Your task to perform on an android device: allow cookies in the chrome app Image 0: 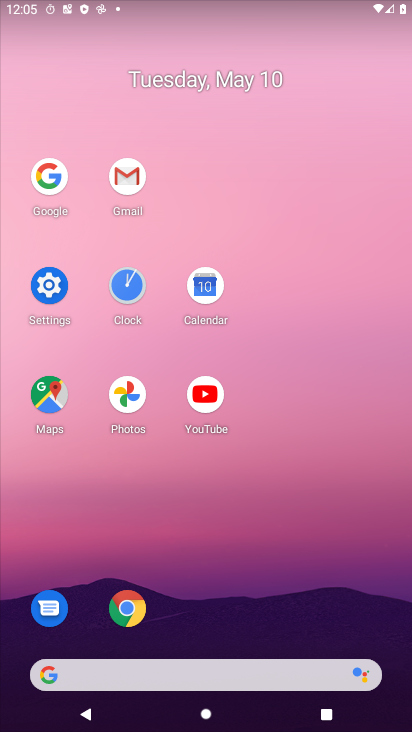
Step 0: click (125, 622)
Your task to perform on an android device: allow cookies in the chrome app Image 1: 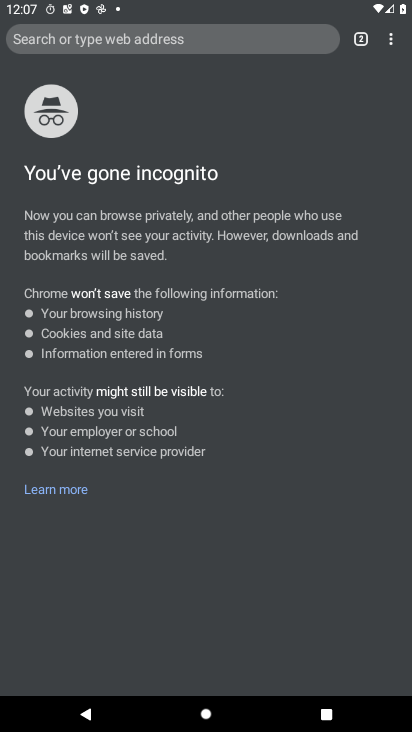
Step 1: click (396, 43)
Your task to perform on an android device: allow cookies in the chrome app Image 2: 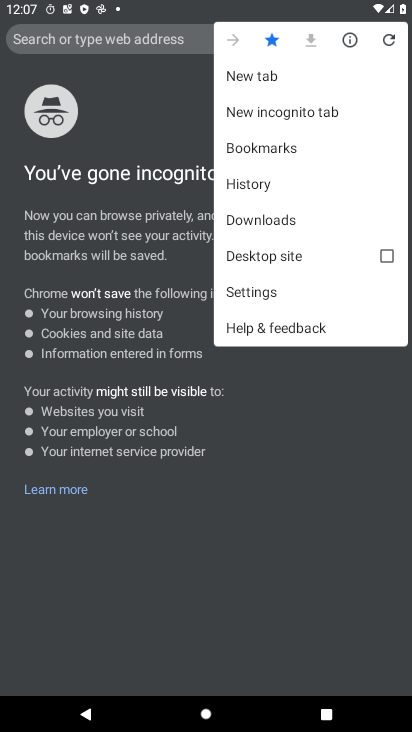
Step 2: click (277, 294)
Your task to perform on an android device: allow cookies in the chrome app Image 3: 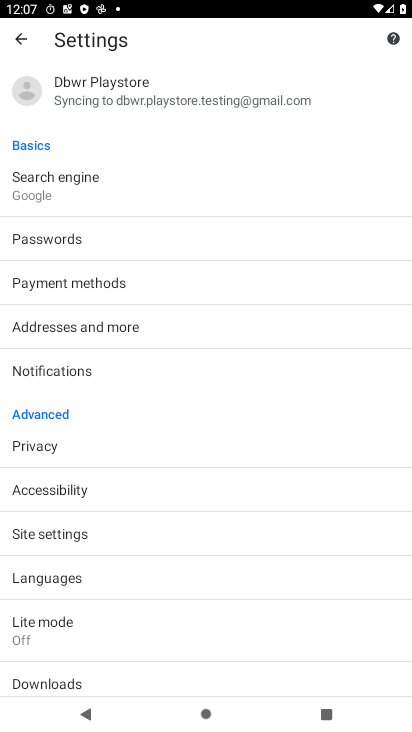
Step 3: drag from (198, 541) to (263, 159)
Your task to perform on an android device: allow cookies in the chrome app Image 4: 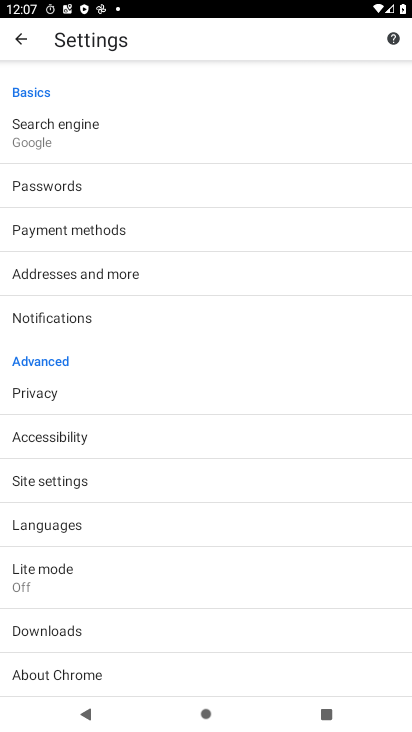
Step 4: click (148, 491)
Your task to perform on an android device: allow cookies in the chrome app Image 5: 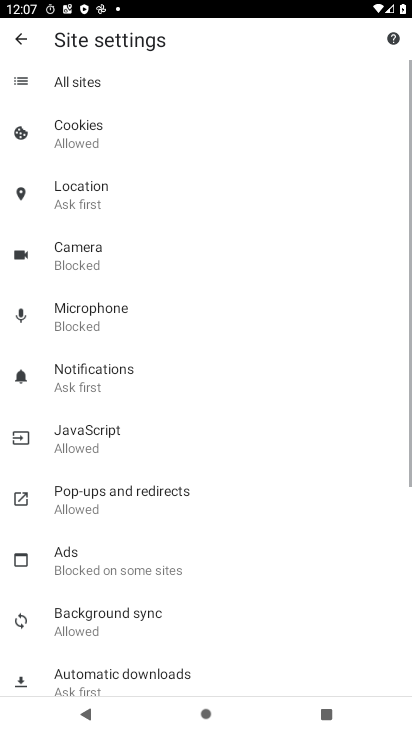
Step 5: click (304, 125)
Your task to perform on an android device: allow cookies in the chrome app Image 6: 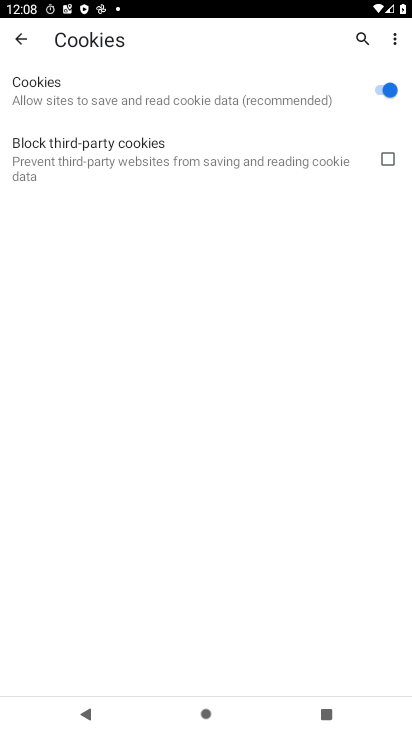
Step 6: task complete